Your task to perform on an android device: toggle improve location accuracy Image 0: 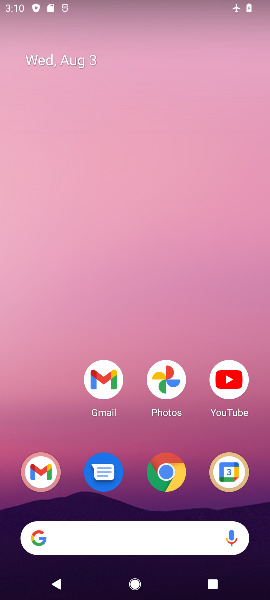
Step 0: drag from (44, 360) to (48, 36)
Your task to perform on an android device: toggle improve location accuracy Image 1: 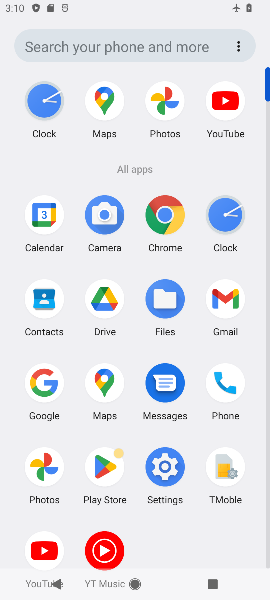
Step 1: click (172, 473)
Your task to perform on an android device: toggle improve location accuracy Image 2: 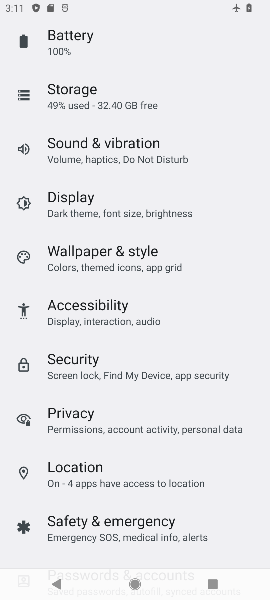
Step 2: click (100, 468)
Your task to perform on an android device: toggle improve location accuracy Image 3: 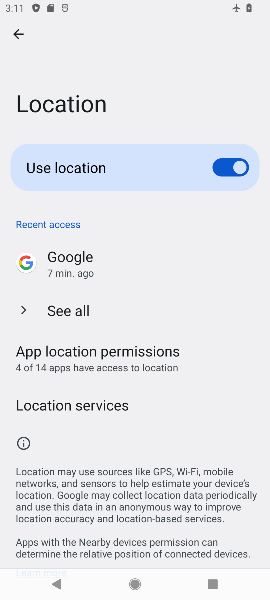
Step 3: drag from (118, 496) to (164, 217)
Your task to perform on an android device: toggle improve location accuracy Image 4: 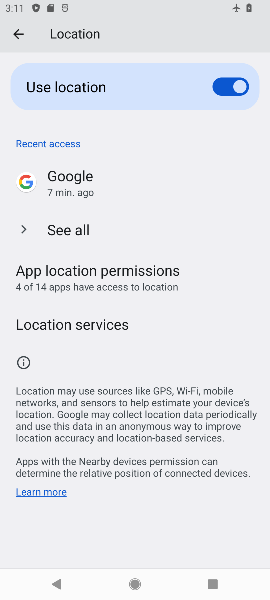
Step 4: click (143, 282)
Your task to perform on an android device: toggle improve location accuracy Image 5: 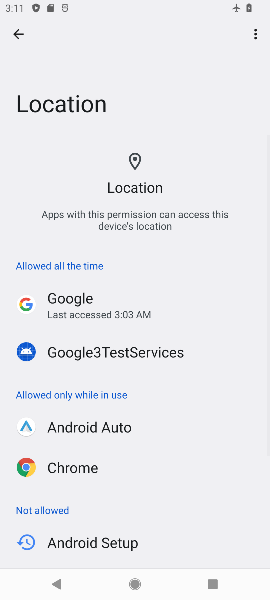
Step 5: click (20, 31)
Your task to perform on an android device: toggle improve location accuracy Image 6: 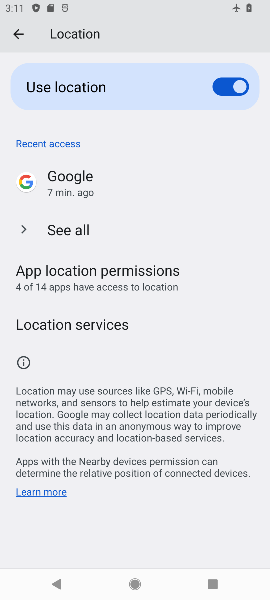
Step 6: task complete